Your task to perform on an android device: turn notification dots on Image 0: 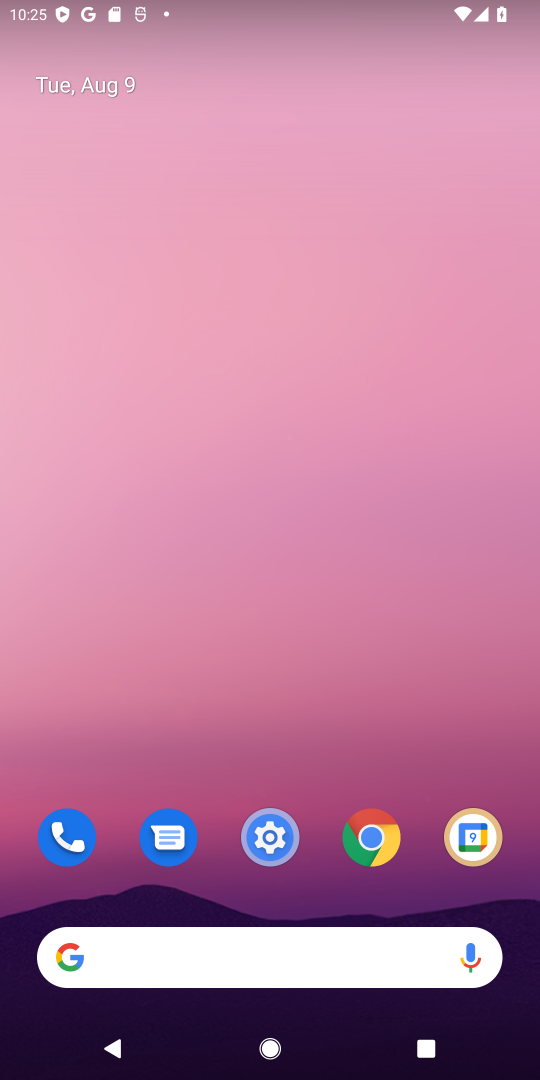
Step 0: drag from (296, 755) to (272, 168)
Your task to perform on an android device: turn notification dots on Image 1: 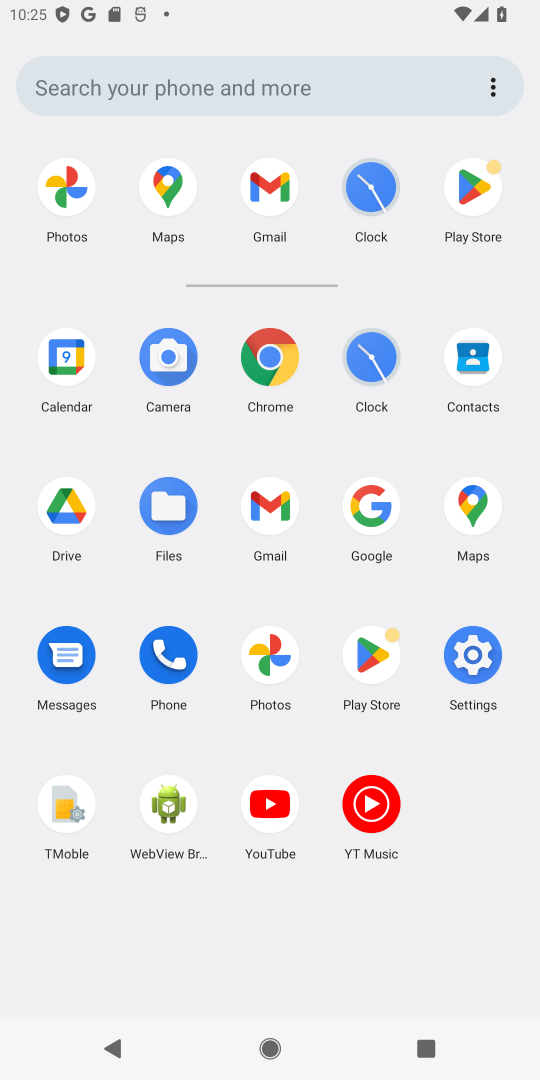
Step 1: click (467, 642)
Your task to perform on an android device: turn notification dots on Image 2: 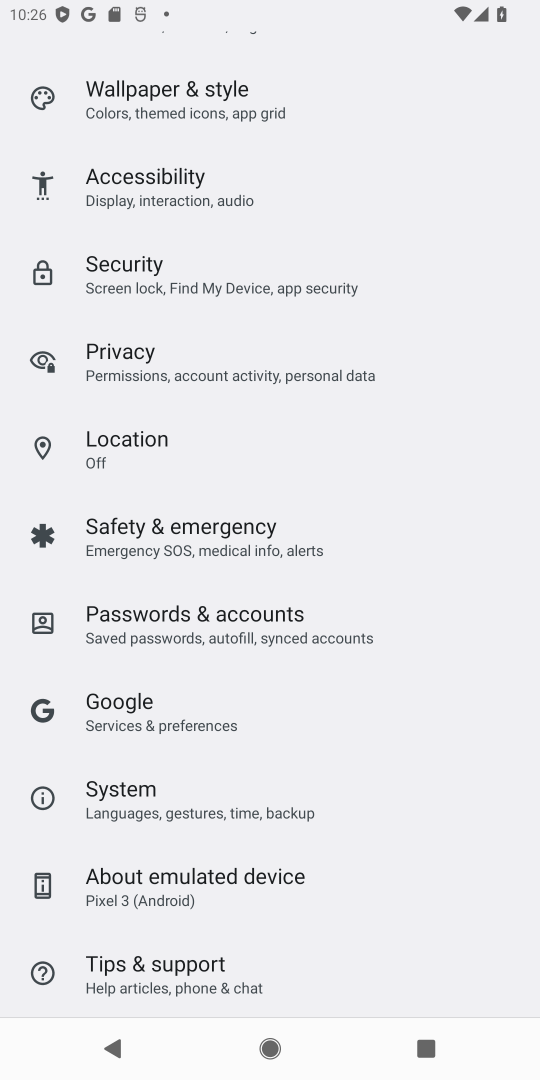
Step 2: drag from (265, 235) to (153, 754)
Your task to perform on an android device: turn notification dots on Image 3: 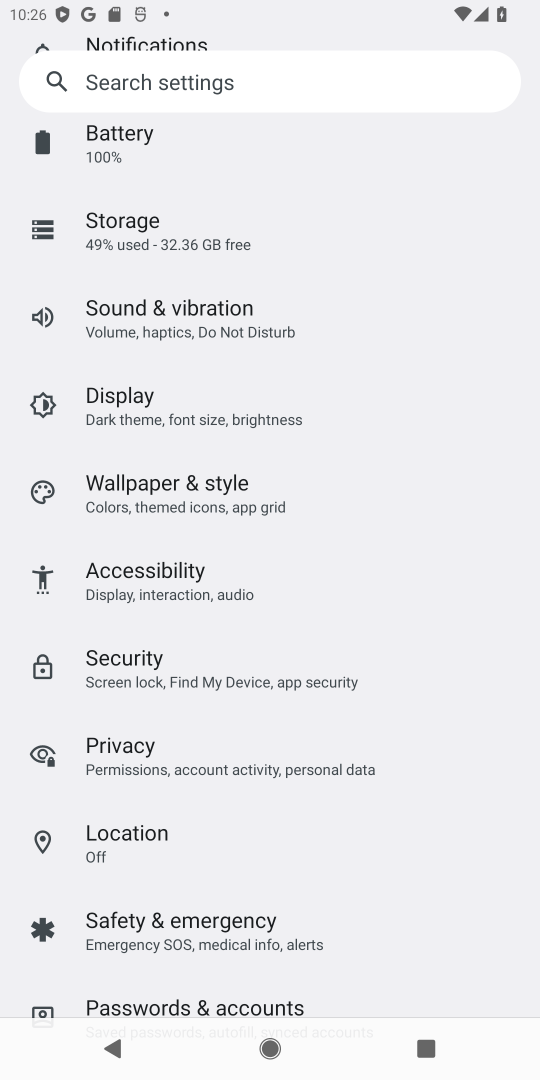
Step 3: drag from (194, 188) to (214, 835)
Your task to perform on an android device: turn notification dots on Image 4: 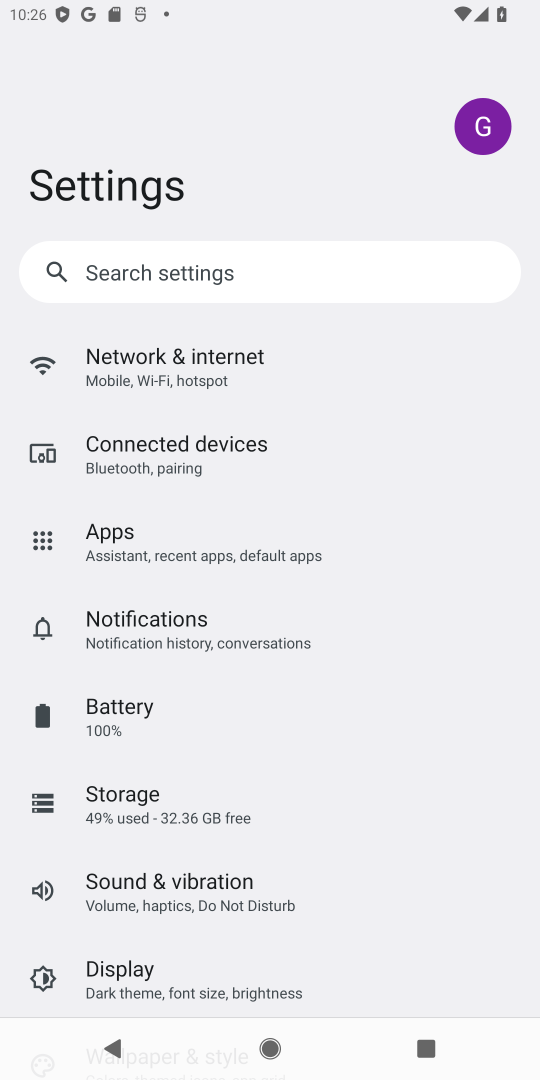
Step 4: click (132, 635)
Your task to perform on an android device: turn notification dots on Image 5: 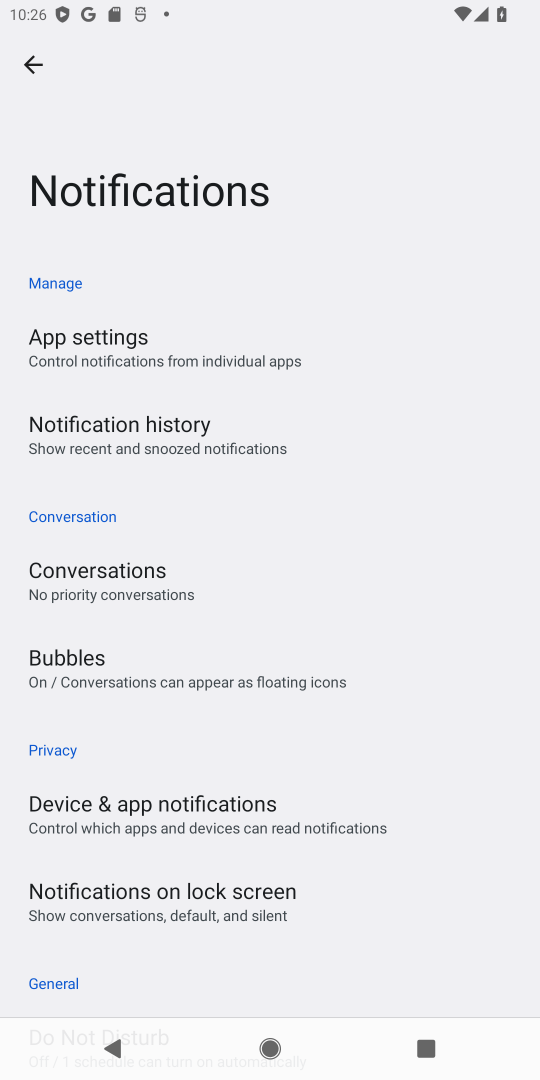
Step 5: task complete